Your task to perform on an android device: Search for pizza restaurants on Maps Image 0: 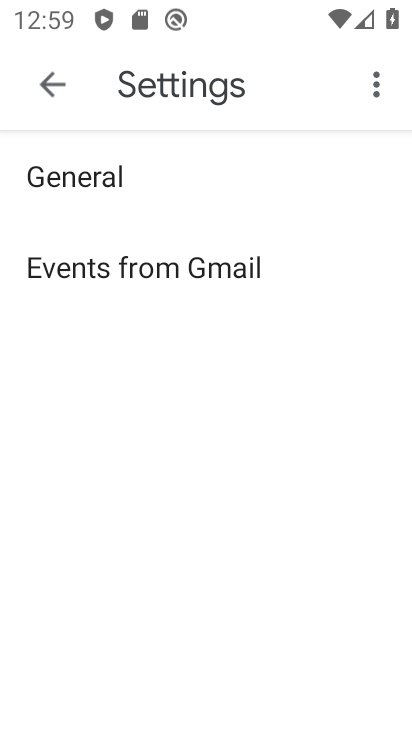
Step 0: press home button
Your task to perform on an android device: Search for pizza restaurants on Maps Image 1: 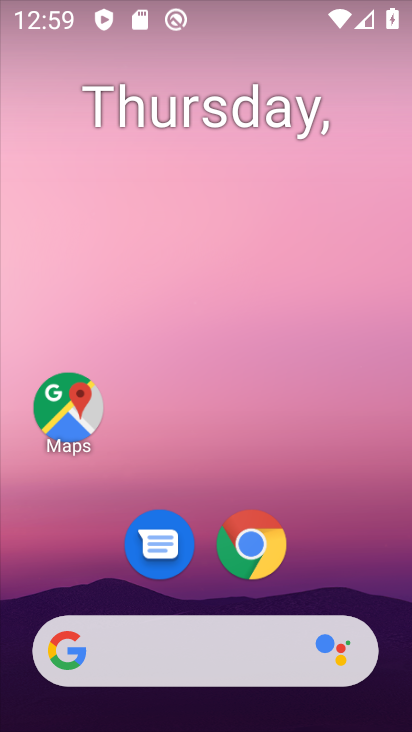
Step 1: drag from (215, 724) to (215, 136)
Your task to perform on an android device: Search for pizza restaurants on Maps Image 2: 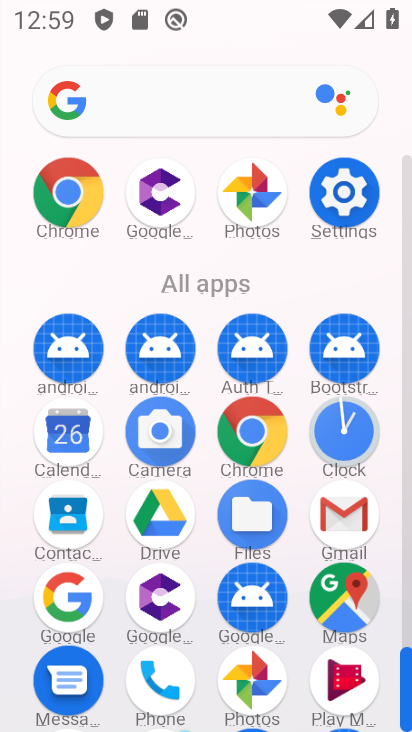
Step 2: click (345, 597)
Your task to perform on an android device: Search for pizza restaurants on Maps Image 3: 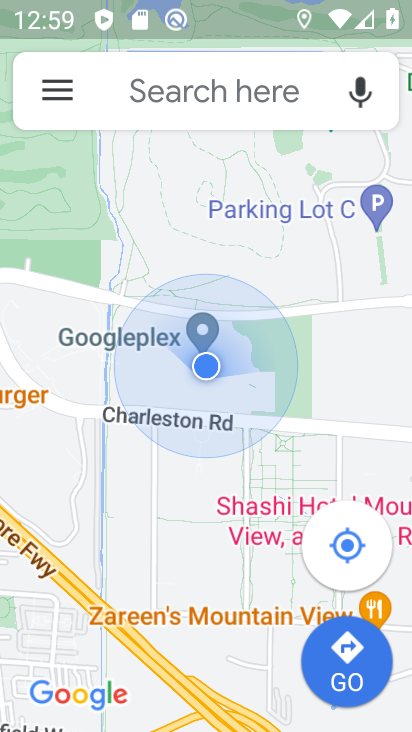
Step 3: click (191, 99)
Your task to perform on an android device: Search for pizza restaurants on Maps Image 4: 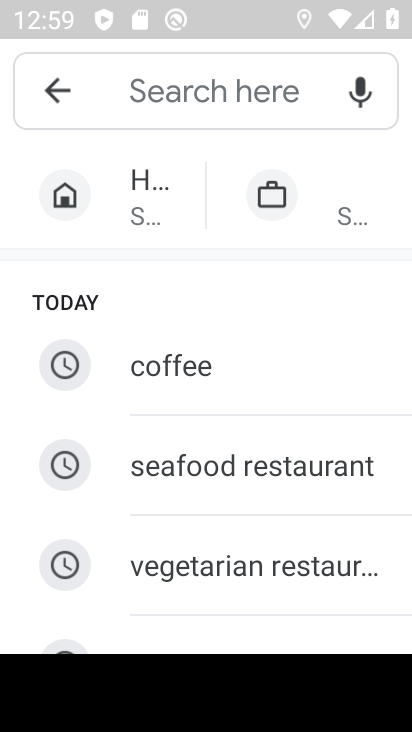
Step 4: type "pizza restaurants"
Your task to perform on an android device: Search for pizza restaurants on Maps Image 5: 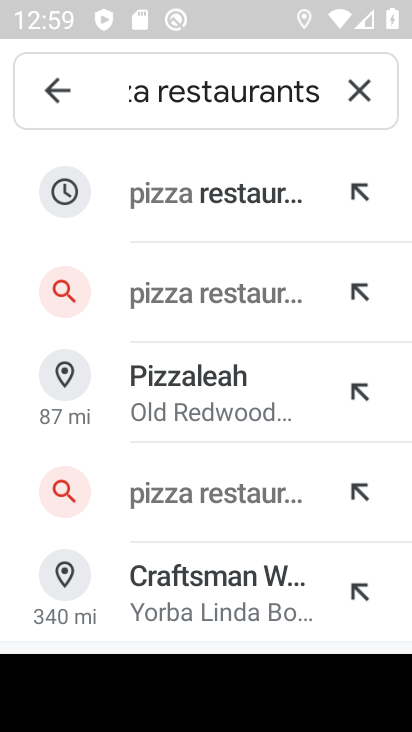
Step 5: click (227, 198)
Your task to perform on an android device: Search for pizza restaurants on Maps Image 6: 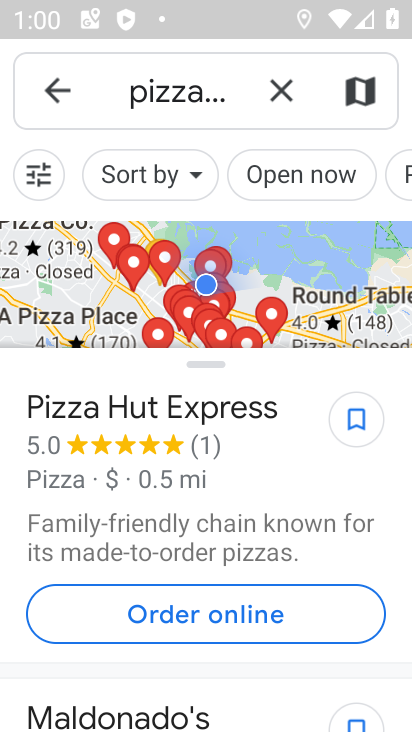
Step 6: task complete